Your task to perform on an android device: toggle wifi Image 0: 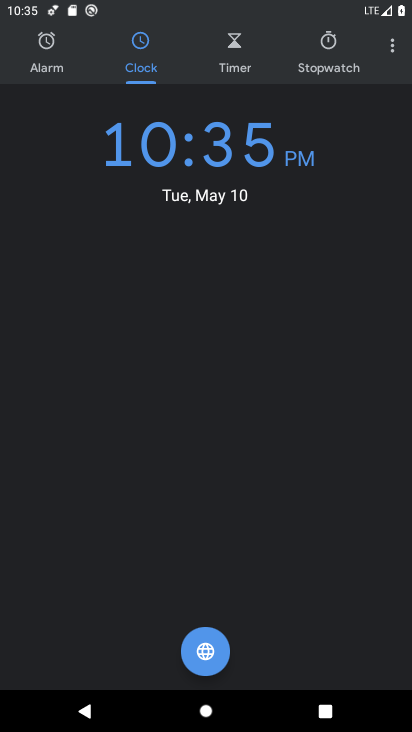
Step 0: press home button
Your task to perform on an android device: toggle wifi Image 1: 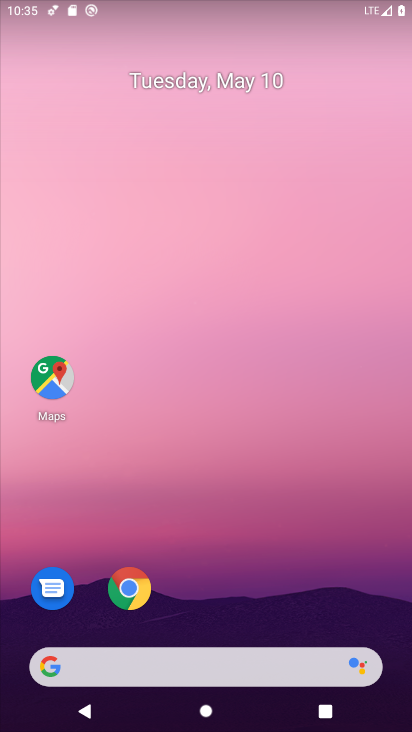
Step 1: drag from (216, 612) to (249, 181)
Your task to perform on an android device: toggle wifi Image 2: 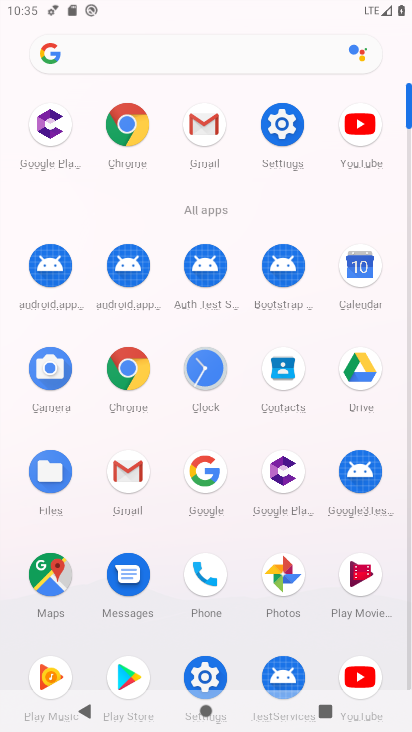
Step 2: click (276, 123)
Your task to perform on an android device: toggle wifi Image 3: 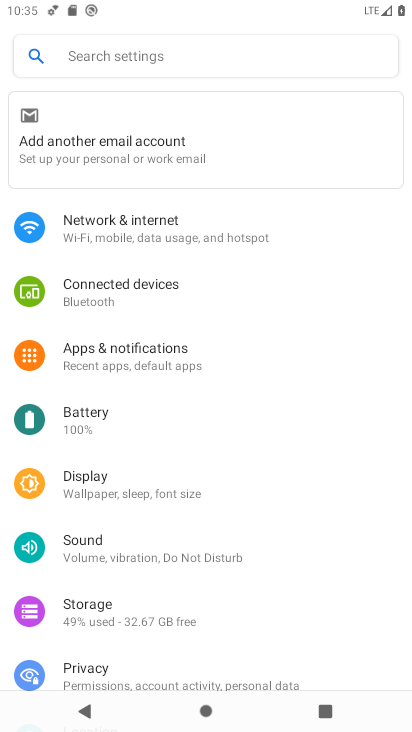
Step 3: click (145, 249)
Your task to perform on an android device: toggle wifi Image 4: 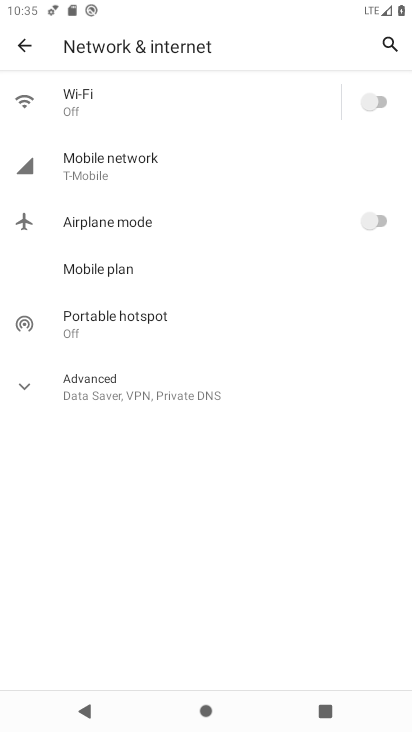
Step 4: click (380, 105)
Your task to perform on an android device: toggle wifi Image 5: 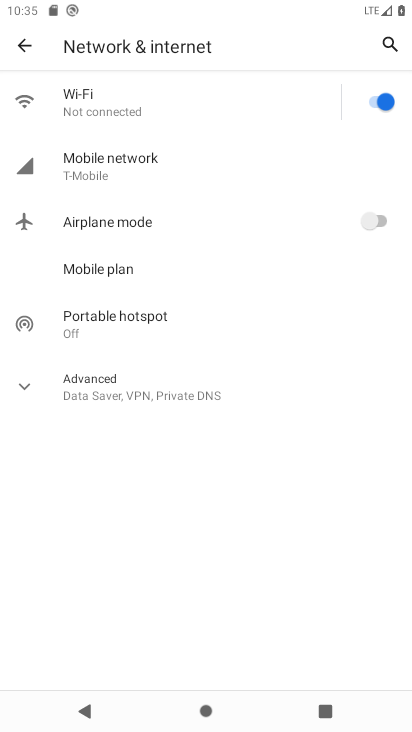
Step 5: task complete